Your task to perform on an android device: turn off improve location accuracy Image 0: 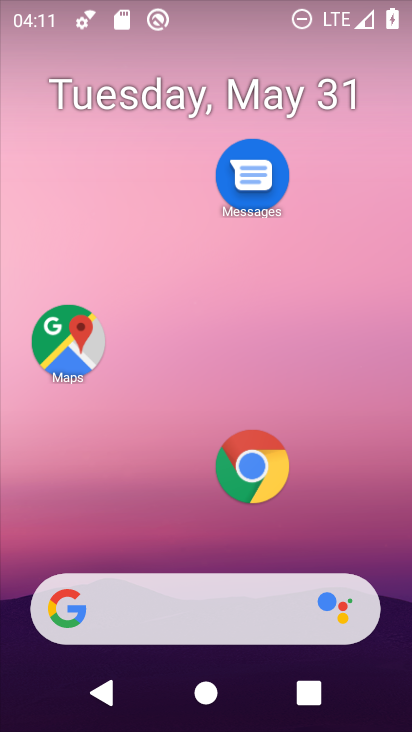
Step 0: drag from (164, 452) to (220, 93)
Your task to perform on an android device: turn off improve location accuracy Image 1: 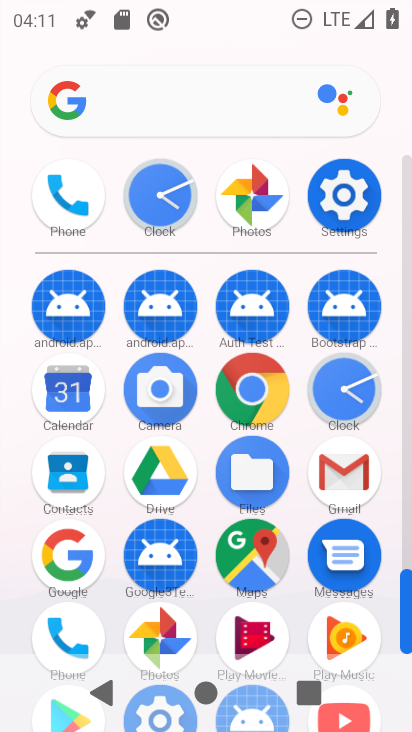
Step 1: click (346, 189)
Your task to perform on an android device: turn off improve location accuracy Image 2: 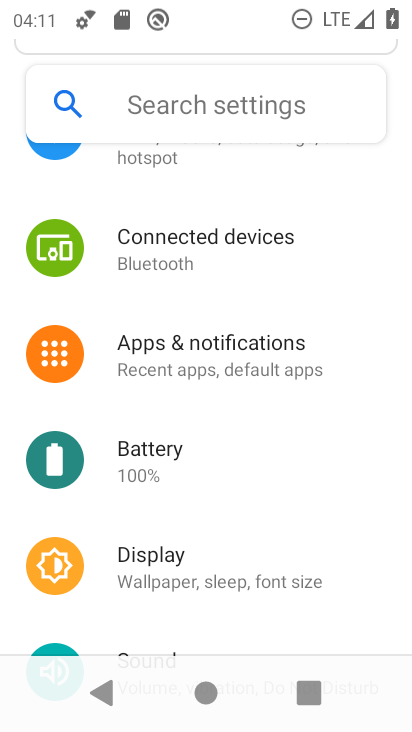
Step 2: drag from (192, 562) to (286, 98)
Your task to perform on an android device: turn off improve location accuracy Image 3: 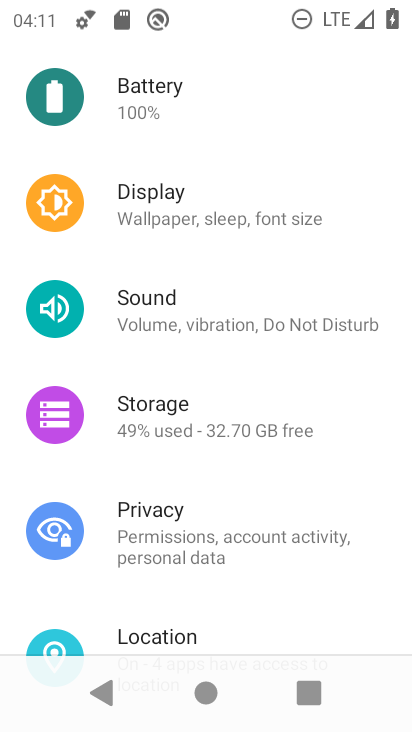
Step 3: click (161, 641)
Your task to perform on an android device: turn off improve location accuracy Image 4: 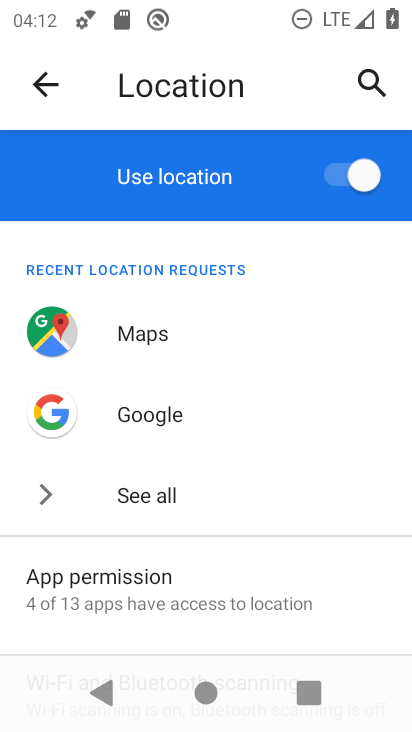
Step 4: drag from (224, 574) to (247, 94)
Your task to perform on an android device: turn off improve location accuracy Image 5: 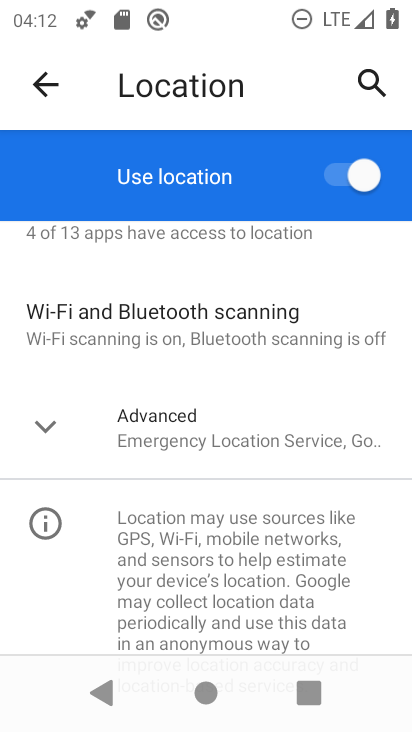
Step 5: click (136, 436)
Your task to perform on an android device: turn off improve location accuracy Image 6: 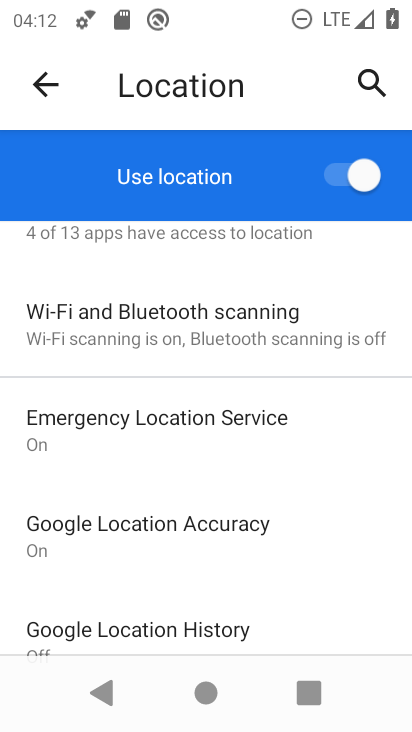
Step 6: click (144, 529)
Your task to perform on an android device: turn off improve location accuracy Image 7: 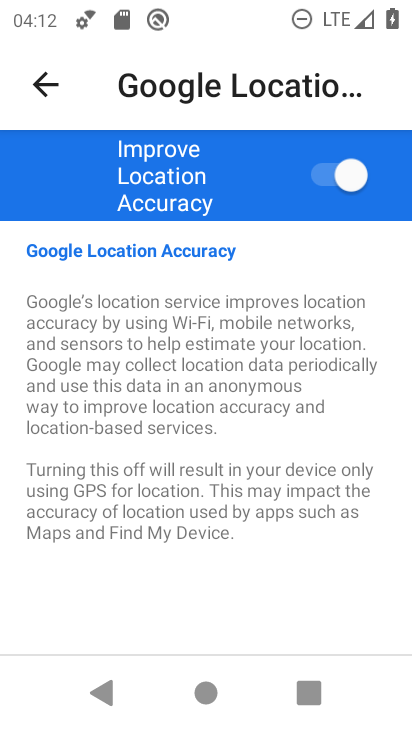
Step 7: click (334, 170)
Your task to perform on an android device: turn off improve location accuracy Image 8: 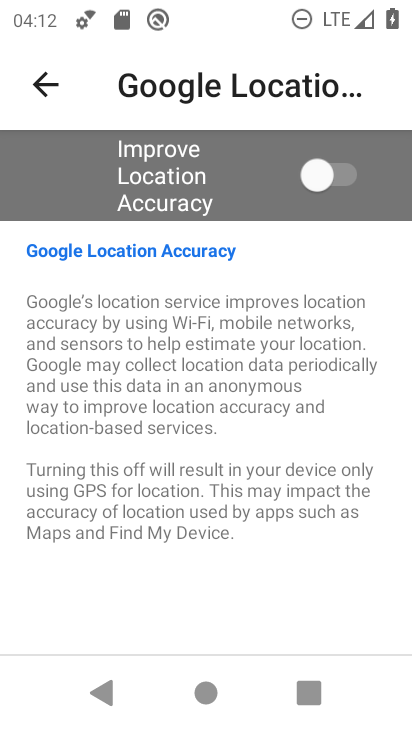
Step 8: task complete